Your task to perform on an android device: turn off smart reply in the gmail app Image 0: 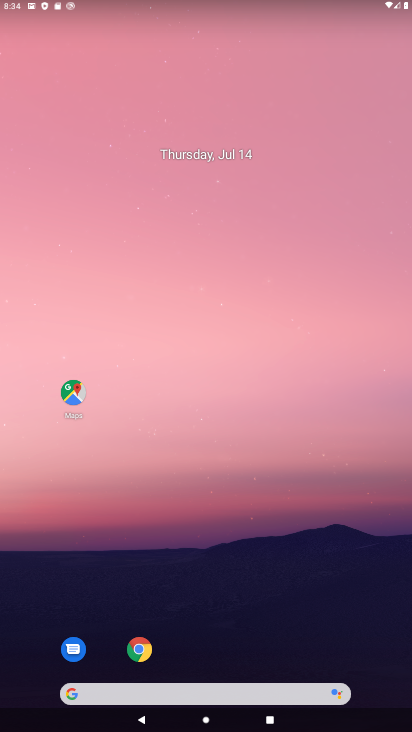
Step 0: drag from (322, 568) to (391, 9)
Your task to perform on an android device: turn off smart reply in the gmail app Image 1: 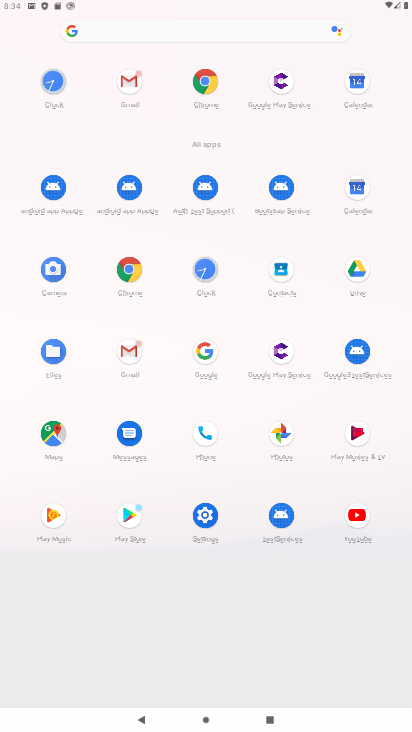
Step 1: click (129, 82)
Your task to perform on an android device: turn off smart reply in the gmail app Image 2: 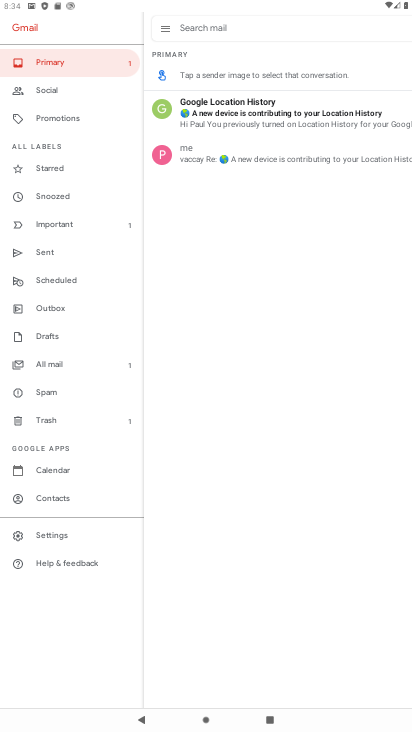
Step 2: click (67, 532)
Your task to perform on an android device: turn off smart reply in the gmail app Image 3: 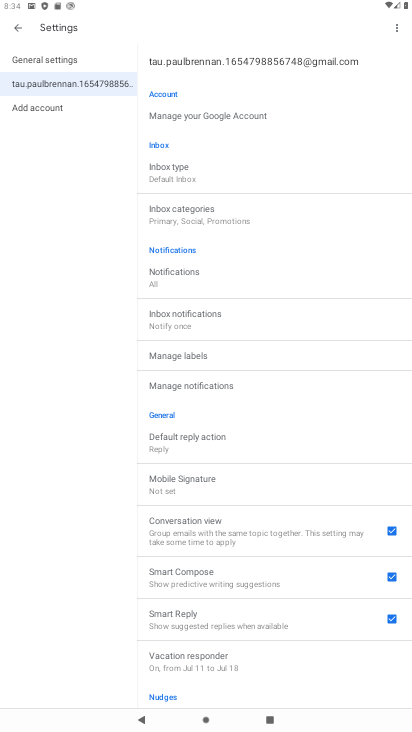
Step 3: drag from (266, 625) to (296, 368)
Your task to perform on an android device: turn off smart reply in the gmail app Image 4: 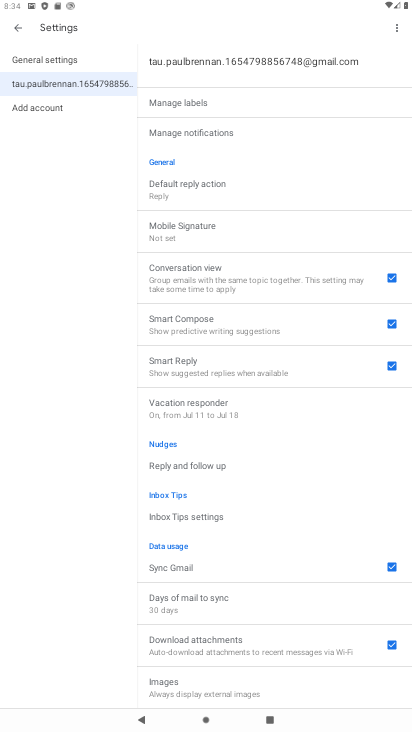
Step 4: click (393, 369)
Your task to perform on an android device: turn off smart reply in the gmail app Image 5: 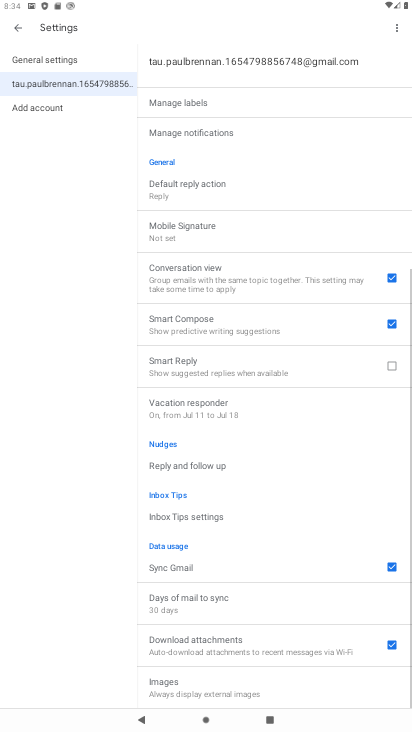
Step 5: task complete